Your task to perform on an android device: Open sound settings Image 0: 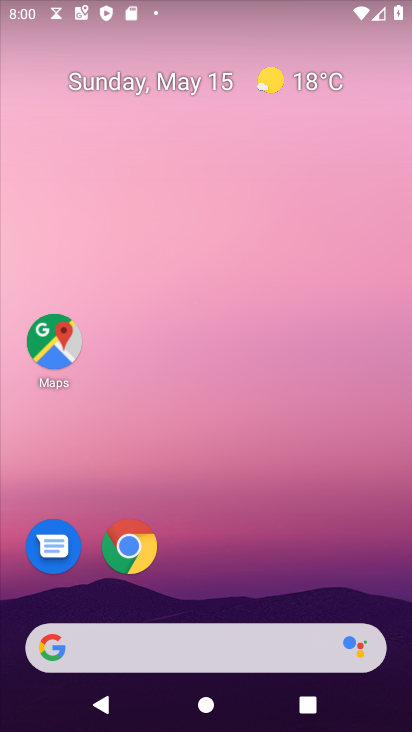
Step 0: drag from (200, 616) to (328, 32)
Your task to perform on an android device: Open sound settings Image 1: 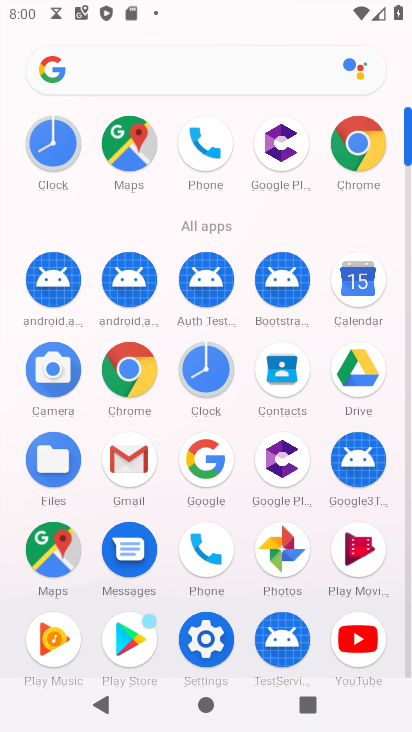
Step 1: drag from (169, 569) to (242, 229)
Your task to perform on an android device: Open sound settings Image 2: 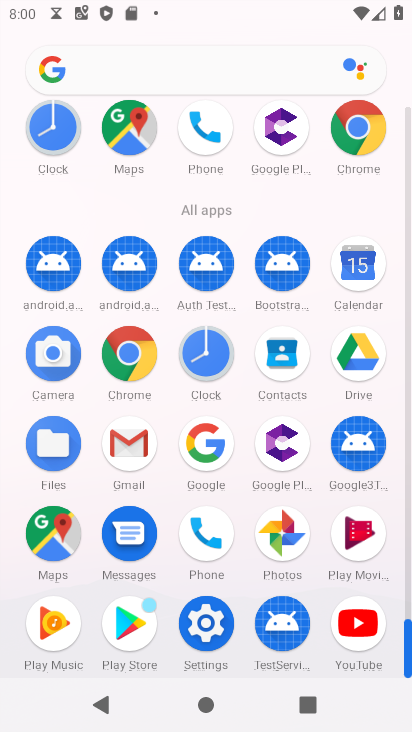
Step 2: click (212, 617)
Your task to perform on an android device: Open sound settings Image 3: 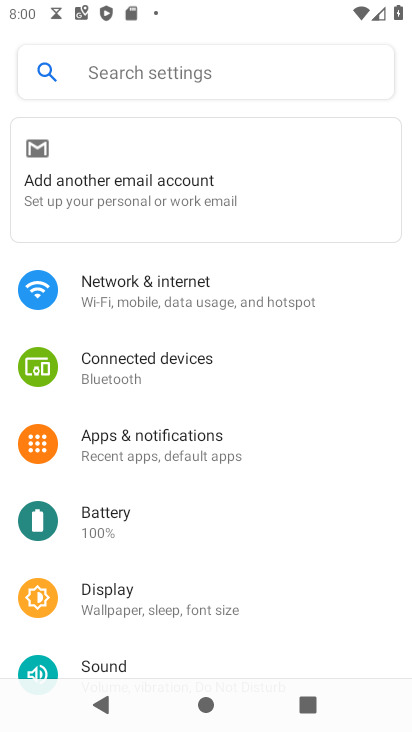
Step 3: drag from (155, 645) to (272, 347)
Your task to perform on an android device: Open sound settings Image 4: 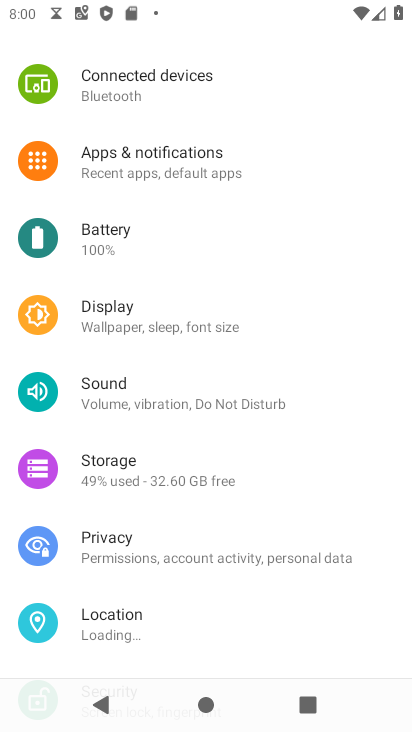
Step 4: click (148, 381)
Your task to perform on an android device: Open sound settings Image 5: 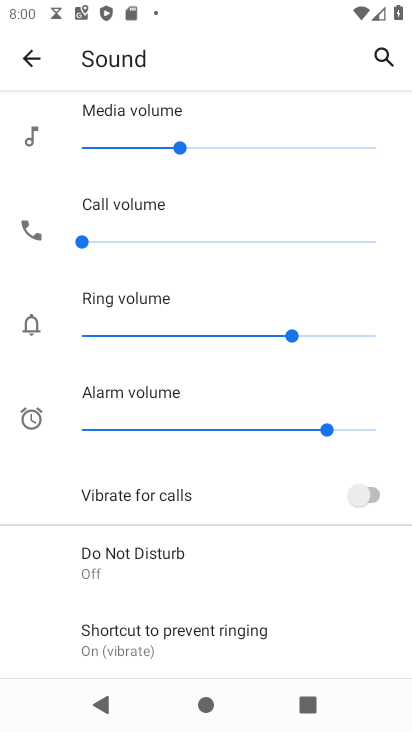
Step 5: task complete